Your task to perform on an android device: Go to wifi settings Image 0: 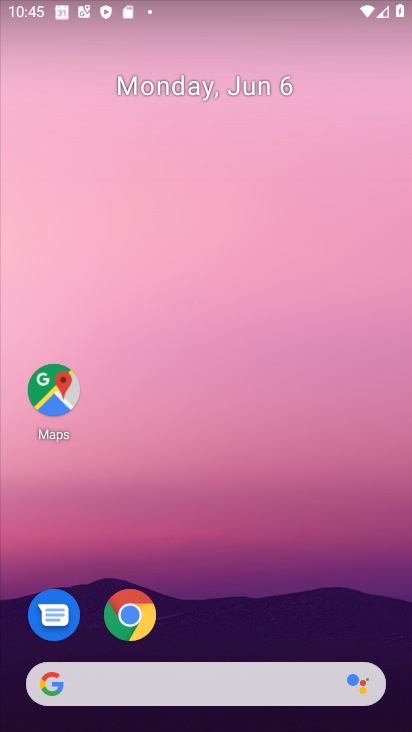
Step 0: drag from (226, 224) to (213, 67)
Your task to perform on an android device: Go to wifi settings Image 1: 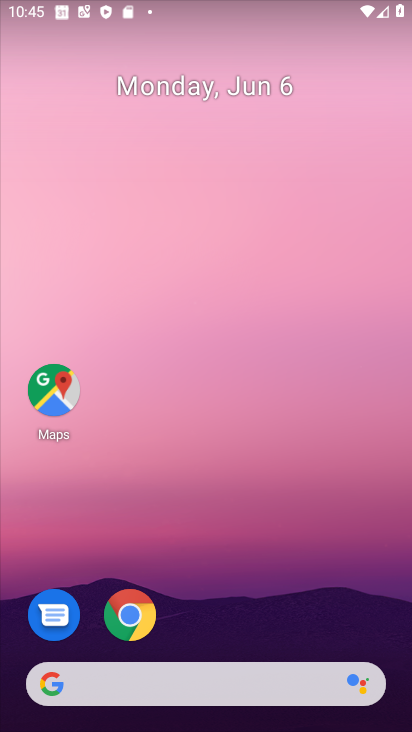
Step 1: drag from (241, 589) to (339, 34)
Your task to perform on an android device: Go to wifi settings Image 2: 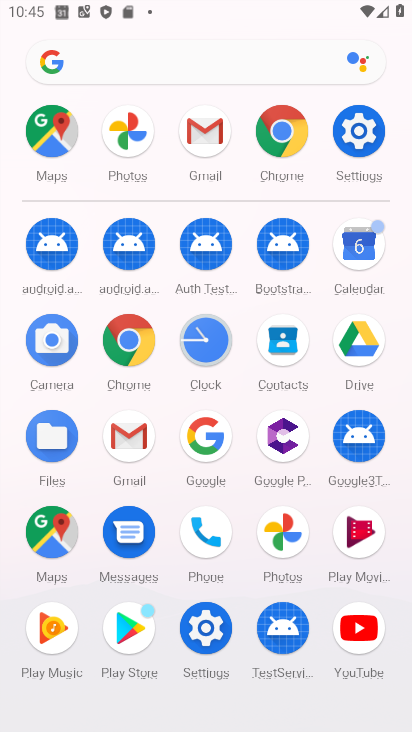
Step 2: click (373, 223)
Your task to perform on an android device: Go to wifi settings Image 3: 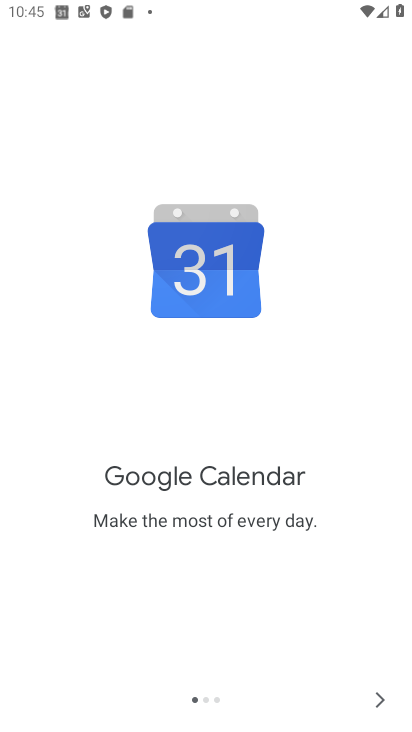
Step 3: press home button
Your task to perform on an android device: Go to wifi settings Image 4: 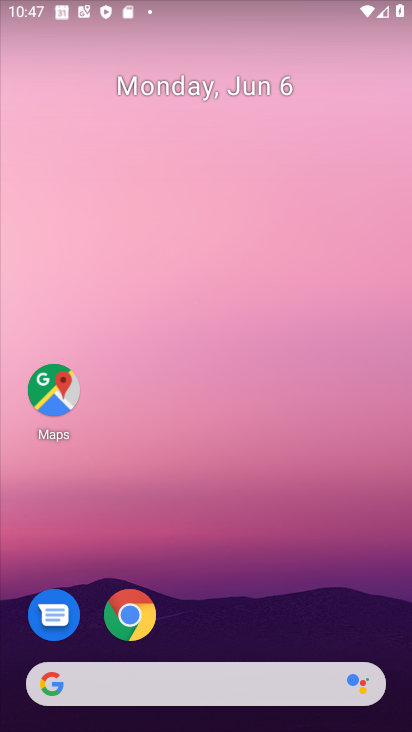
Step 4: drag from (270, 638) to (296, 1)
Your task to perform on an android device: Go to wifi settings Image 5: 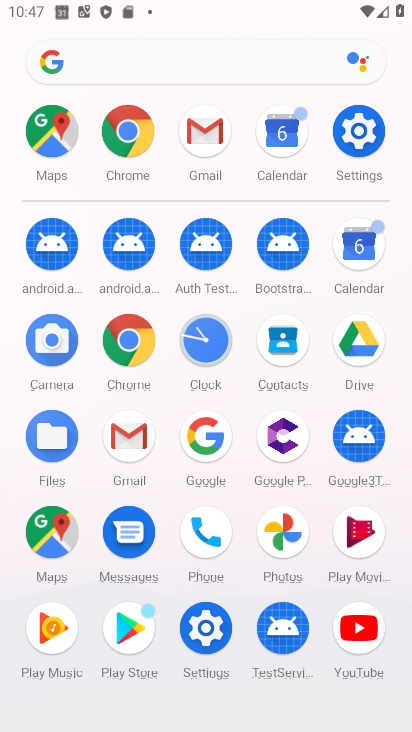
Step 5: click (374, 126)
Your task to perform on an android device: Go to wifi settings Image 6: 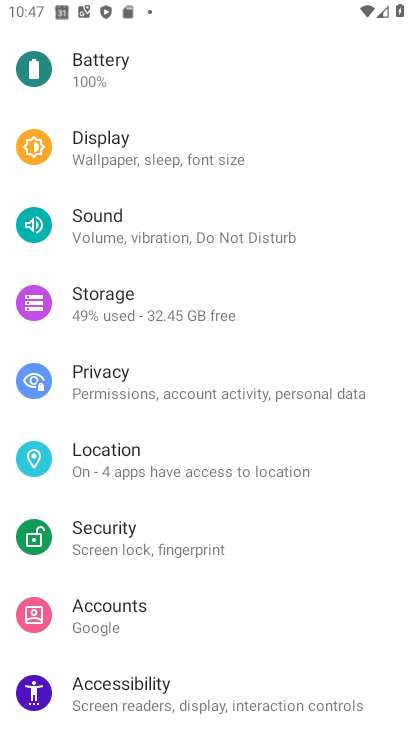
Step 6: drag from (251, 113) to (247, 495)
Your task to perform on an android device: Go to wifi settings Image 7: 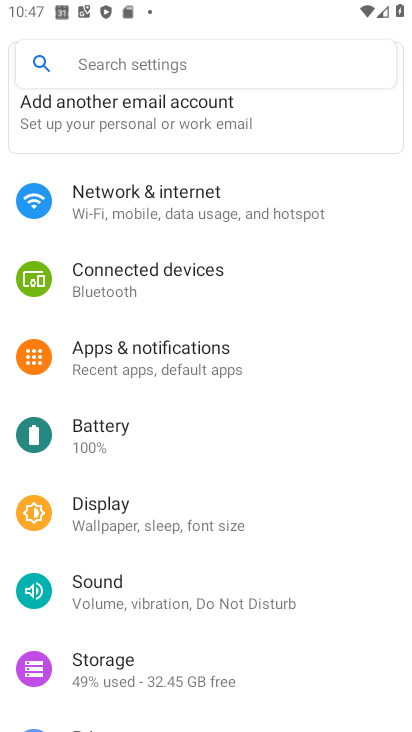
Step 7: click (190, 206)
Your task to perform on an android device: Go to wifi settings Image 8: 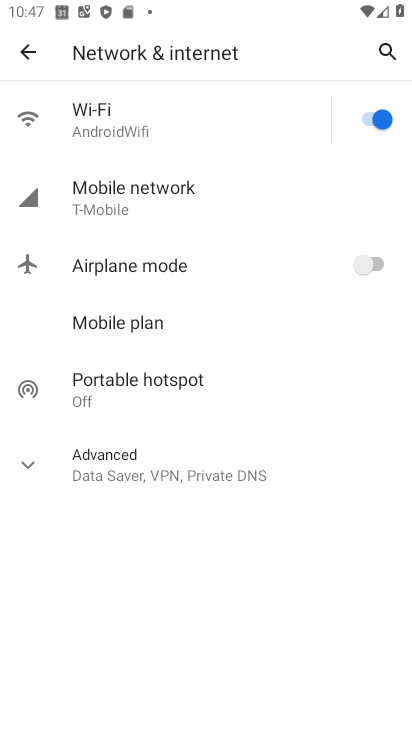
Step 8: task complete